Your task to perform on an android device: Open CNN.com Image 0: 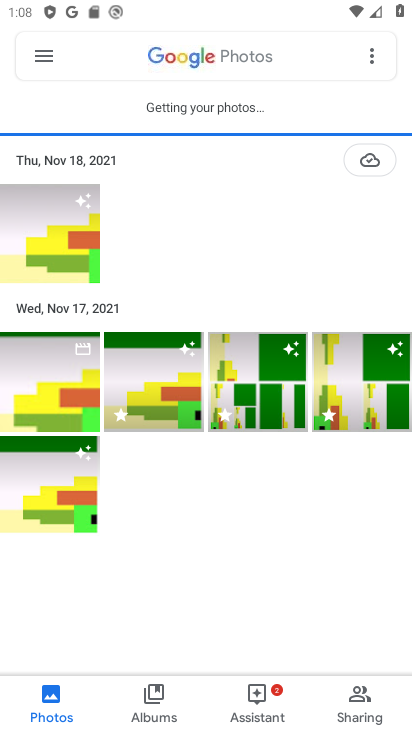
Step 0: press home button
Your task to perform on an android device: Open CNN.com Image 1: 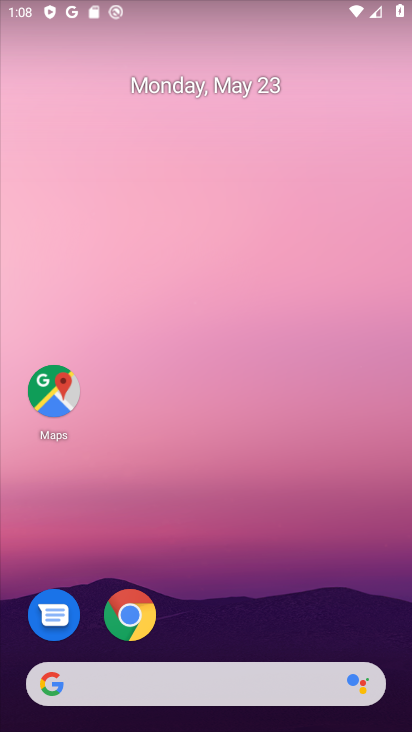
Step 1: drag from (216, 636) to (377, 233)
Your task to perform on an android device: Open CNN.com Image 2: 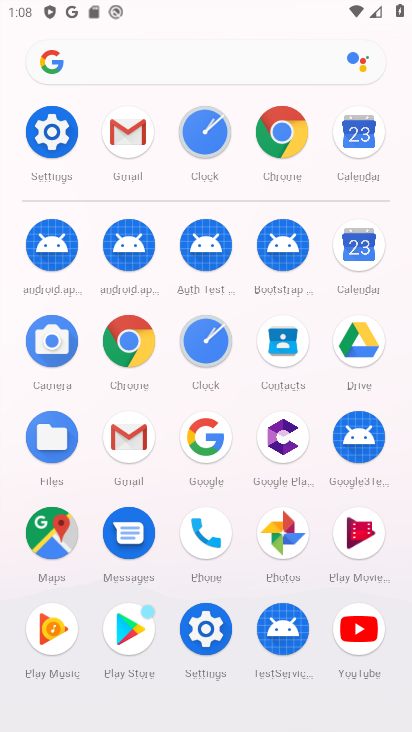
Step 2: click (130, 369)
Your task to perform on an android device: Open CNN.com Image 3: 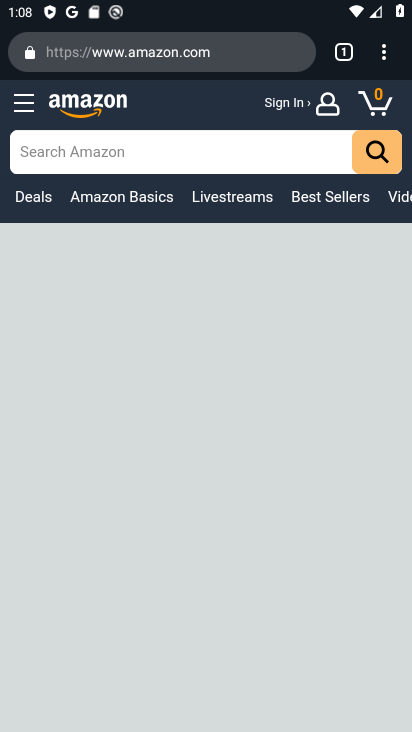
Step 3: click (335, 48)
Your task to perform on an android device: Open CNN.com Image 4: 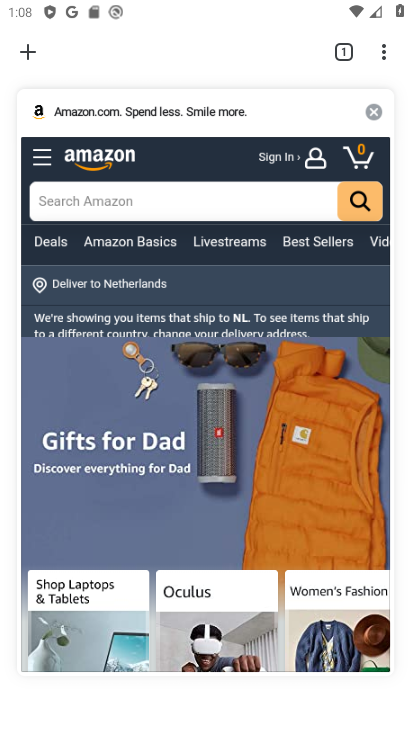
Step 4: click (22, 51)
Your task to perform on an android device: Open CNN.com Image 5: 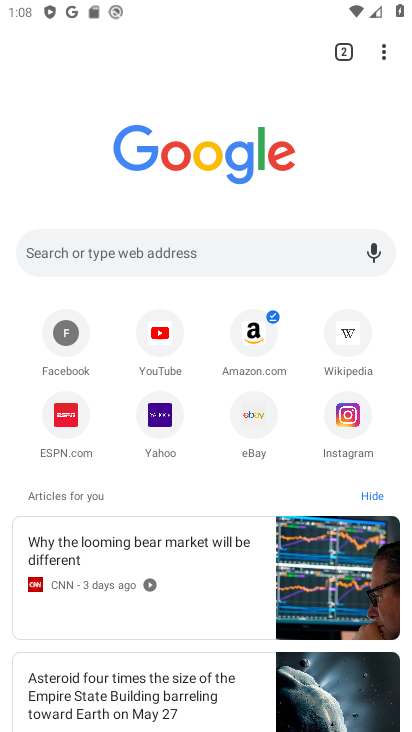
Step 5: click (198, 262)
Your task to perform on an android device: Open CNN.com Image 6: 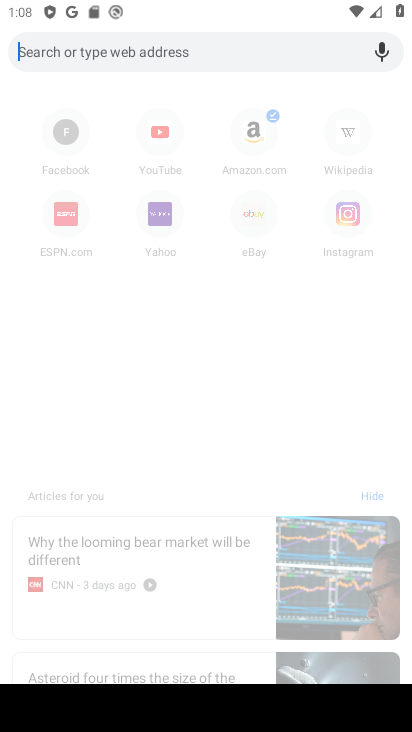
Step 6: type "cnn"
Your task to perform on an android device: Open CNN.com Image 7: 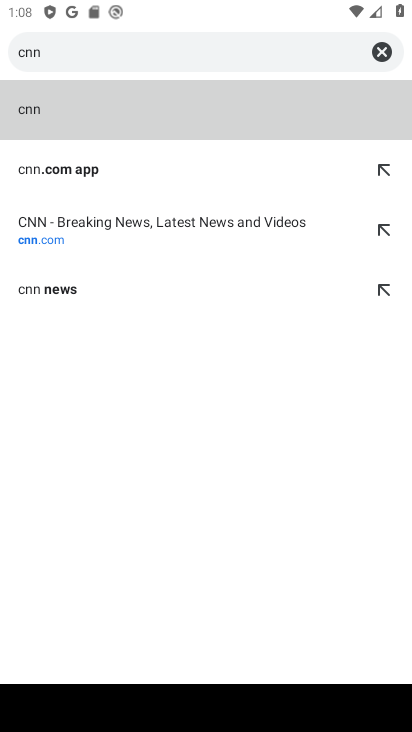
Step 7: click (56, 202)
Your task to perform on an android device: Open CNN.com Image 8: 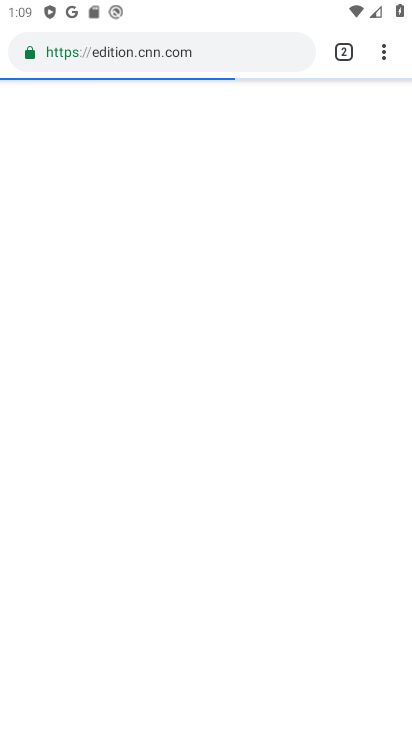
Step 8: task complete